Your task to perform on an android device: Open ESPN.com Image 0: 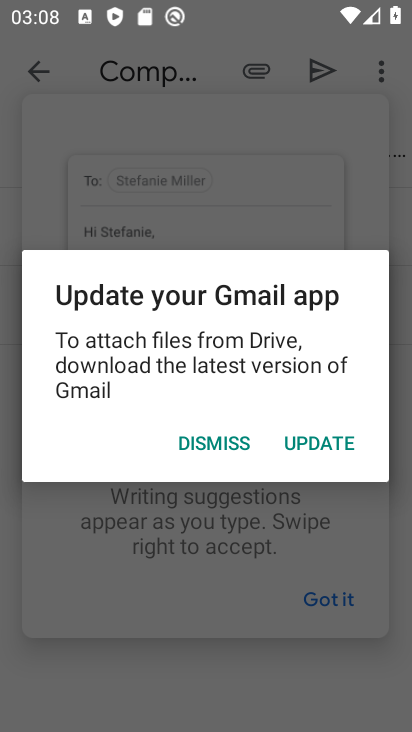
Step 0: press home button
Your task to perform on an android device: Open ESPN.com Image 1: 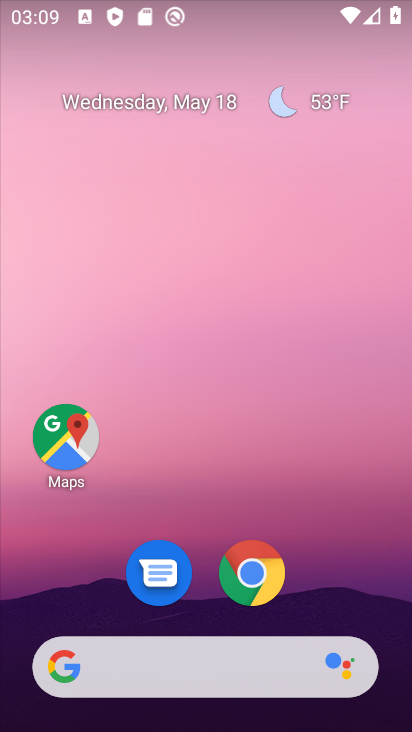
Step 1: click (260, 579)
Your task to perform on an android device: Open ESPN.com Image 2: 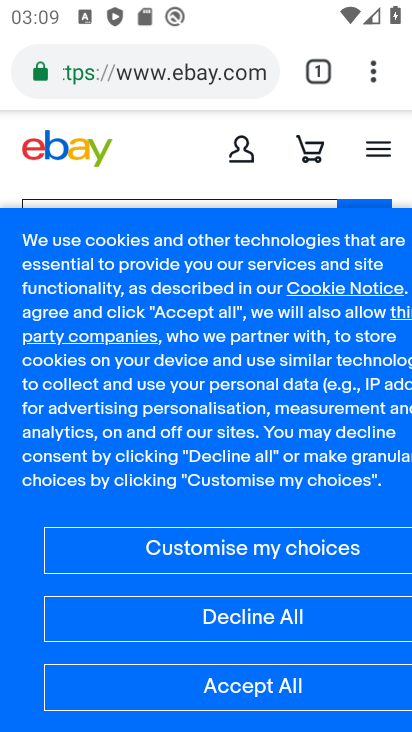
Step 2: click (315, 66)
Your task to perform on an android device: Open ESPN.com Image 3: 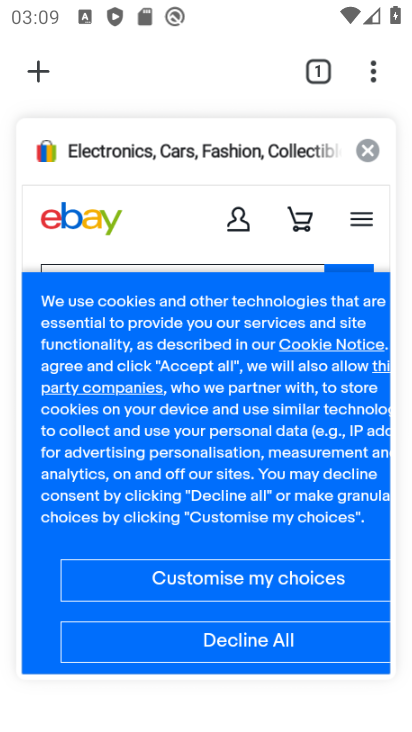
Step 3: click (43, 72)
Your task to perform on an android device: Open ESPN.com Image 4: 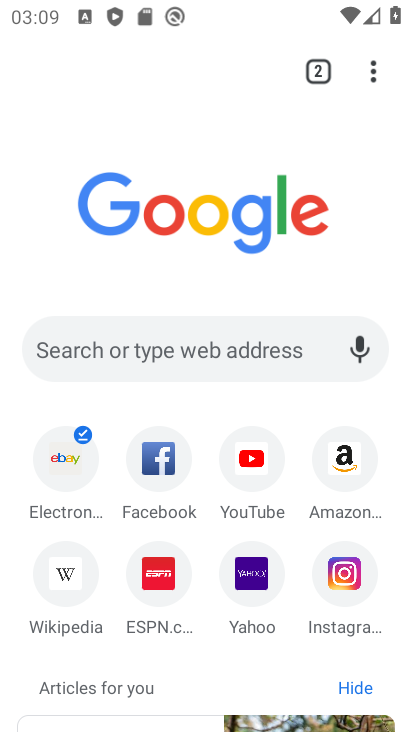
Step 4: click (201, 339)
Your task to perform on an android device: Open ESPN.com Image 5: 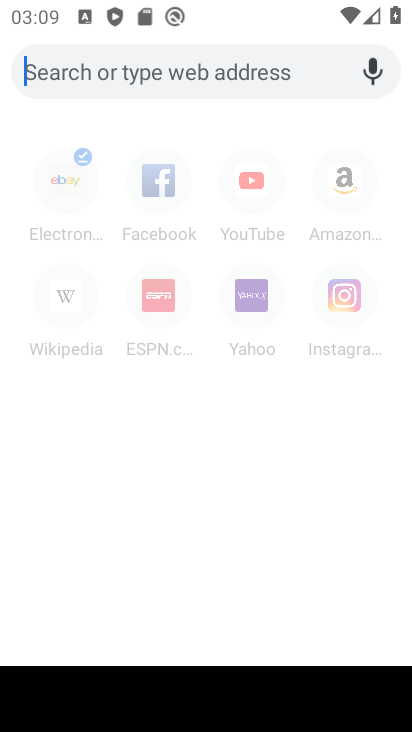
Step 5: type "ESPN.com"
Your task to perform on an android device: Open ESPN.com Image 6: 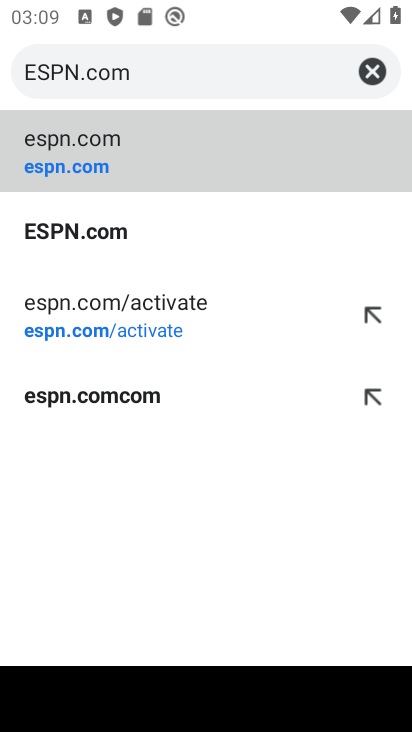
Step 6: click (190, 135)
Your task to perform on an android device: Open ESPN.com Image 7: 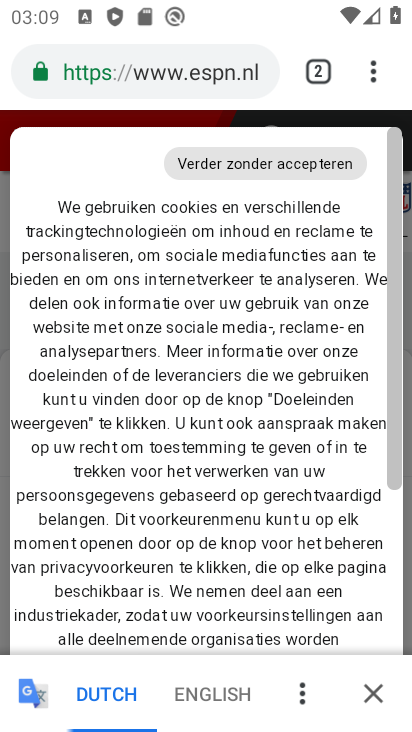
Step 7: task complete